Your task to perform on an android device: find which apps use the phone's location Image 0: 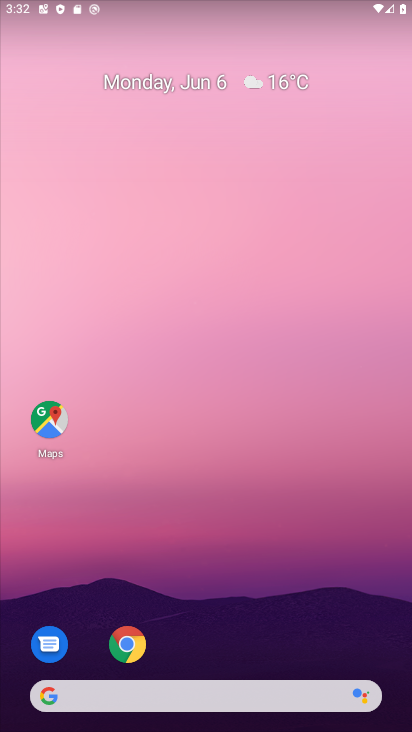
Step 0: drag from (286, 565) to (206, 46)
Your task to perform on an android device: find which apps use the phone's location Image 1: 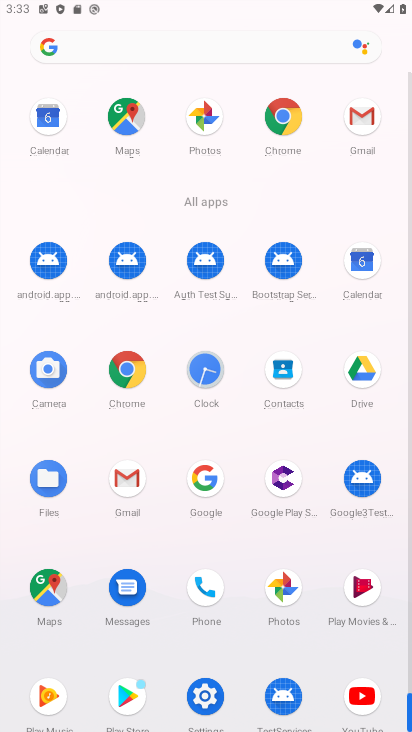
Step 1: click (205, 691)
Your task to perform on an android device: find which apps use the phone's location Image 2: 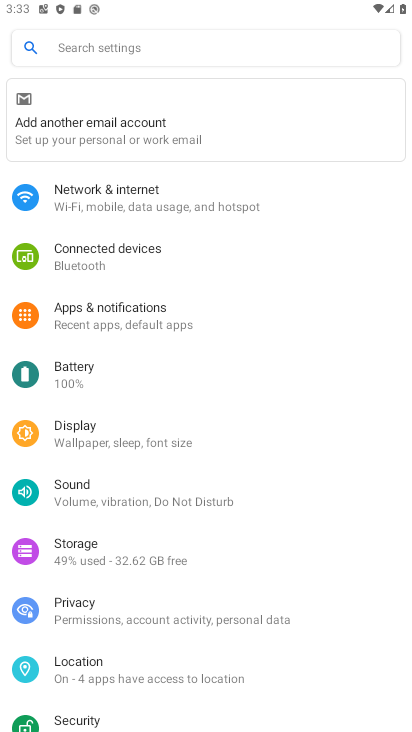
Step 2: click (128, 321)
Your task to perform on an android device: find which apps use the phone's location Image 3: 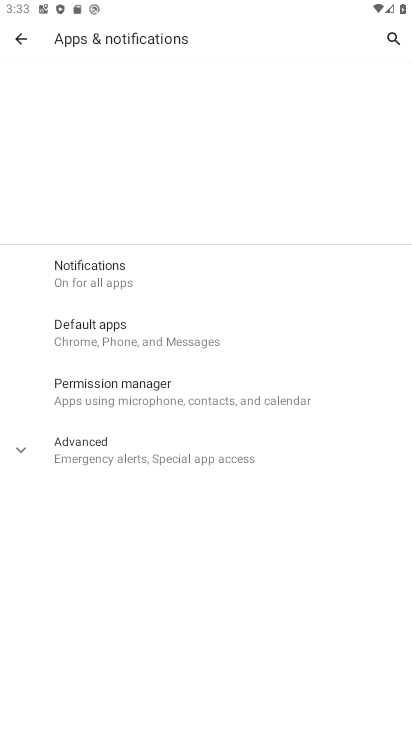
Step 3: click (3, 431)
Your task to perform on an android device: find which apps use the phone's location Image 4: 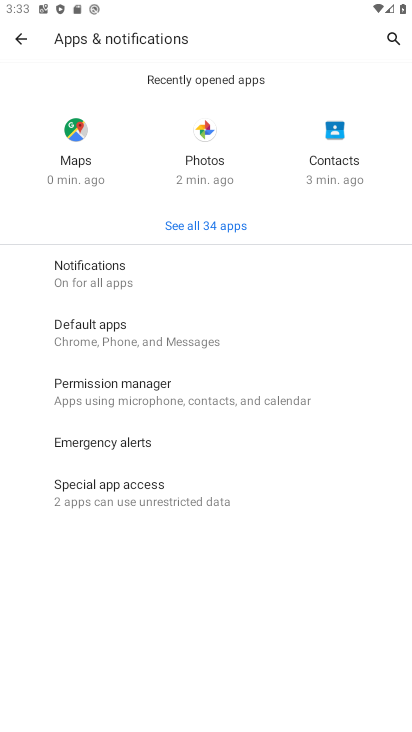
Step 4: click (147, 273)
Your task to perform on an android device: find which apps use the phone's location Image 5: 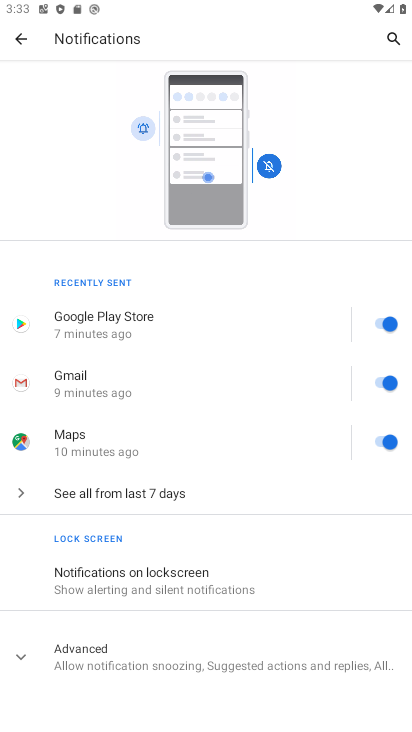
Step 5: drag from (195, 583) to (204, 248)
Your task to perform on an android device: find which apps use the phone's location Image 6: 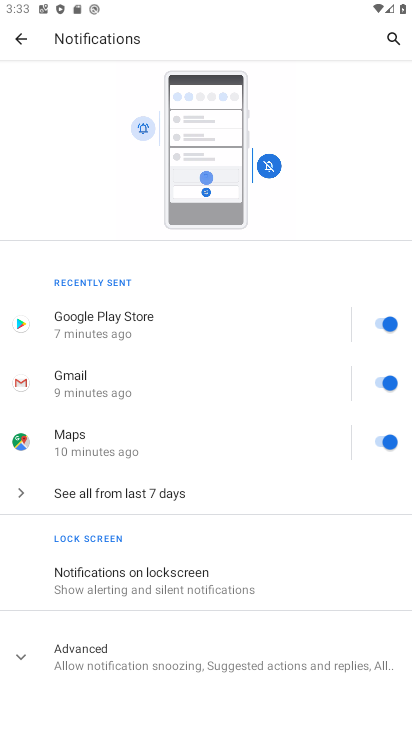
Step 6: click (24, 655)
Your task to perform on an android device: find which apps use the phone's location Image 7: 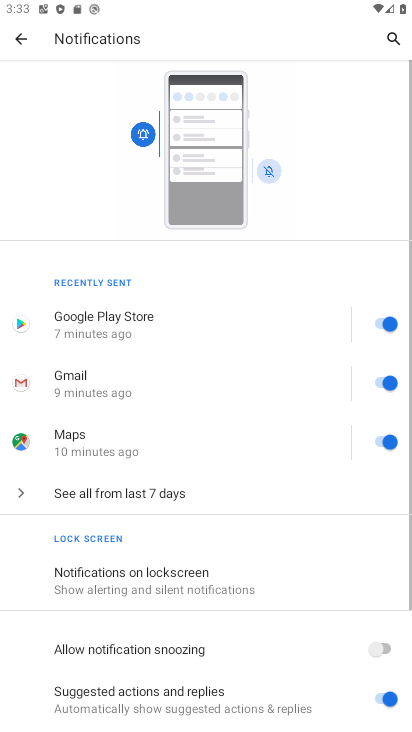
Step 7: drag from (218, 642) to (282, 195)
Your task to perform on an android device: find which apps use the phone's location Image 8: 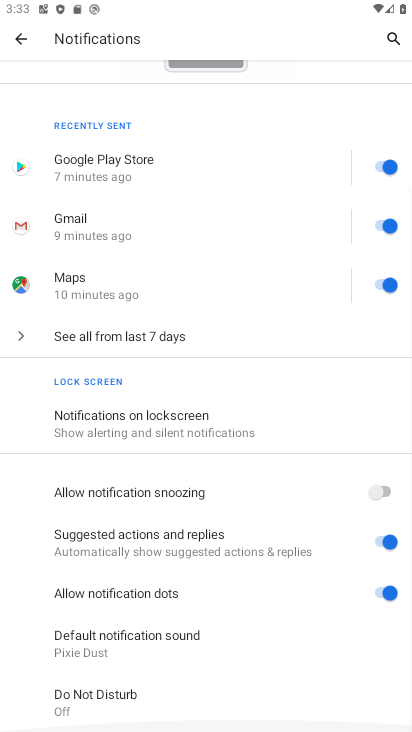
Step 8: drag from (204, 650) to (192, 198)
Your task to perform on an android device: find which apps use the phone's location Image 9: 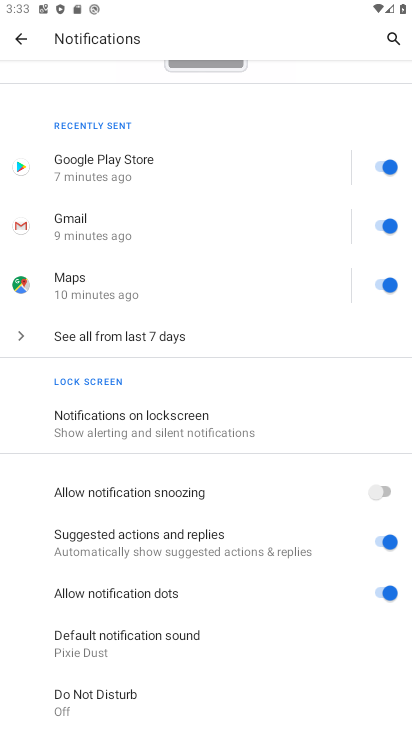
Step 9: drag from (269, 172) to (241, 651)
Your task to perform on an android device: find which apps use the phone's location Image 10: 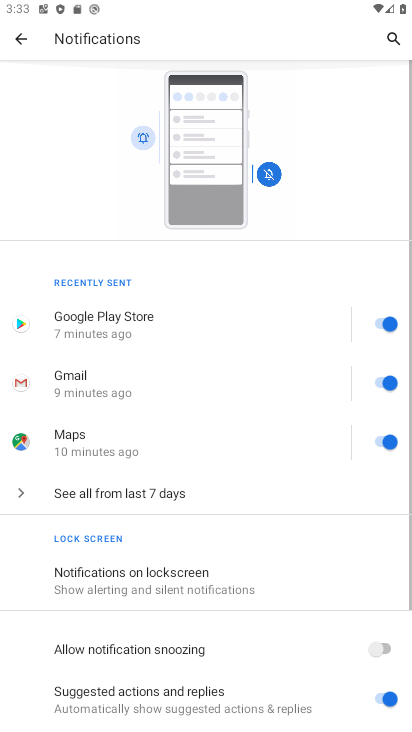
Step 10: drag from (237, 612) to (314, 104)
Your task to perform on an android device: find which apps use the phone's location Image 11: 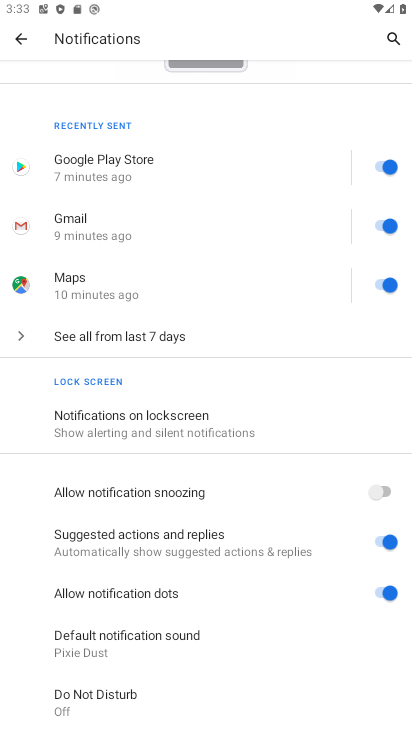
Step 11: click (17, 42)
Your task to perform on an android device: find which apps use the phone's location Image 12: 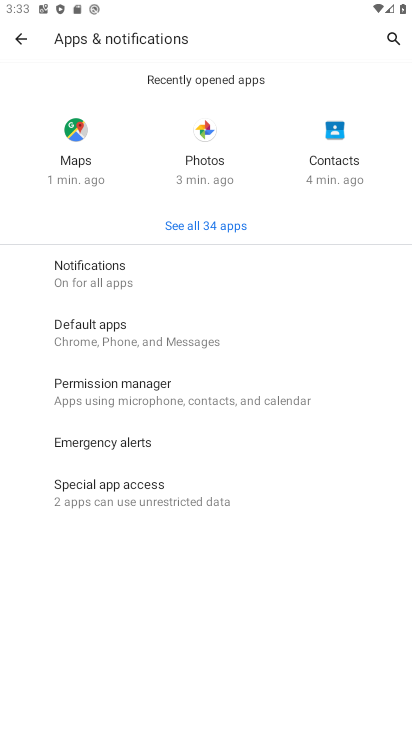
Step 12: click (22, 28)
Your task to perform on an android device: find which apps use the phone's location Image 13: 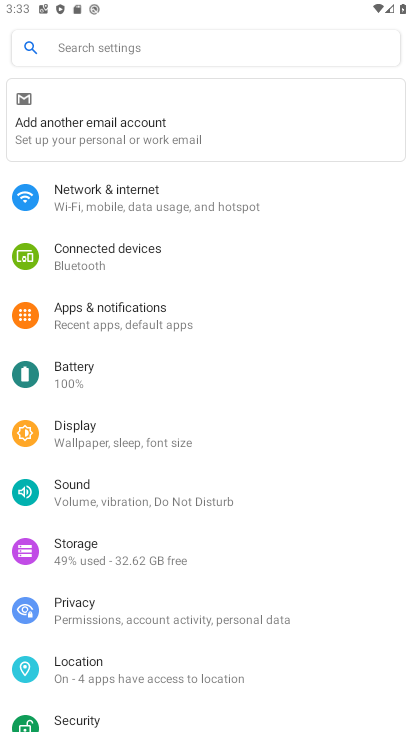
Step 13: click (129, 675)
Your task to perform on an android device: find which apps use the phone's location Image 14: 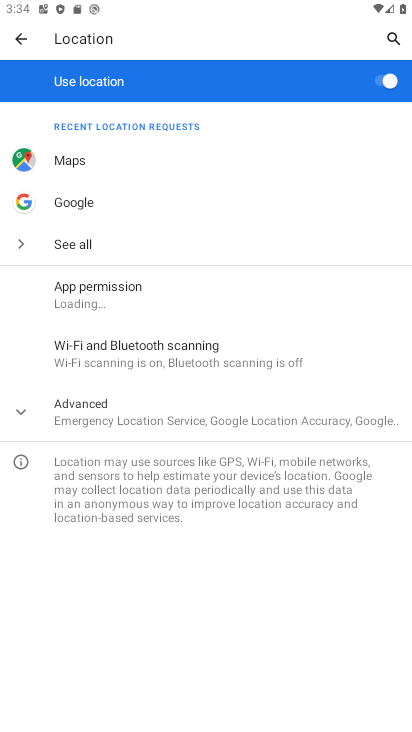
Step 14: click (126, 288)
Your task to perform on an android device: find which apps use the phone's location Image 15: 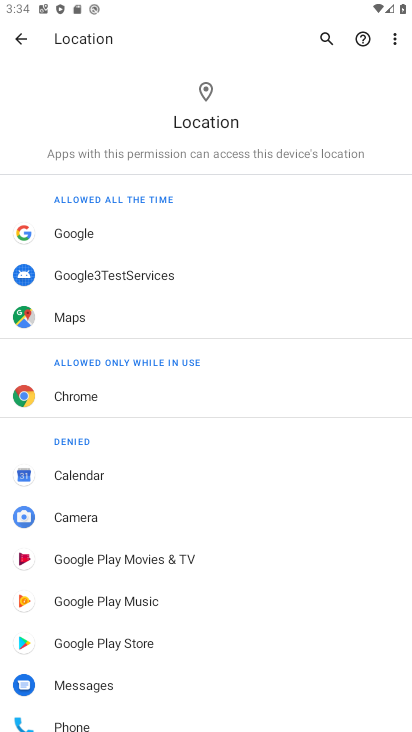
Step 15: task complete